Your task to perform on an android device: Clear the shopping cart on bestbuy.com. Add asus rog to the cart on bestbuy.com Image 0: 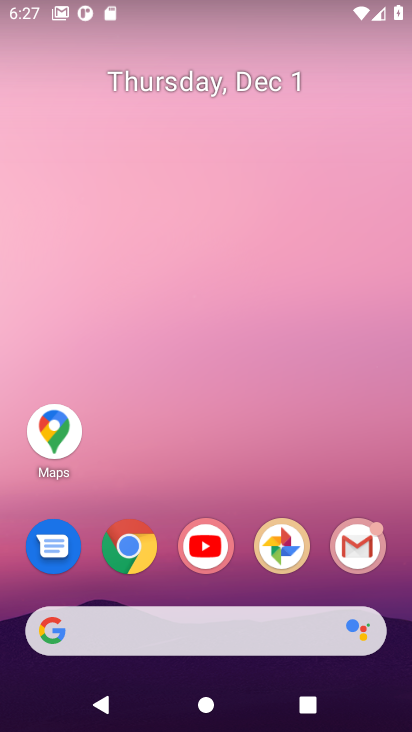
Step 0: click (142, 547)
Your task to perform on an android device: Clear the shopping cart on bestbuy.com. Add asus rog to the cart on bestbuy.com Image 1: 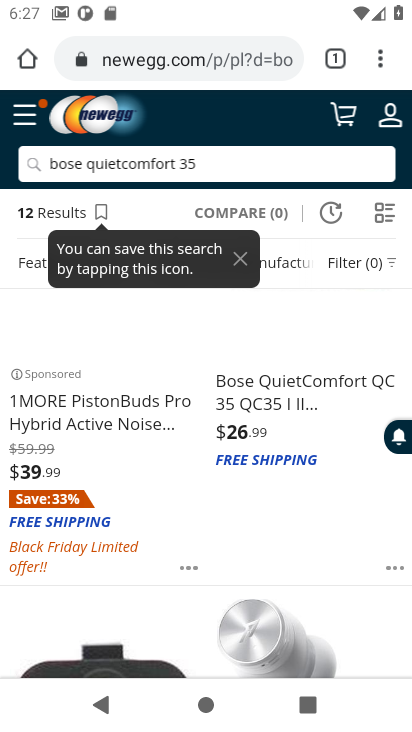
Step 1: click (178, 54)
Your task to perform on an android device: Clear the shopping cart on bestbuy.com. Add asus rog to the cart on bestbuy.com Image 2: 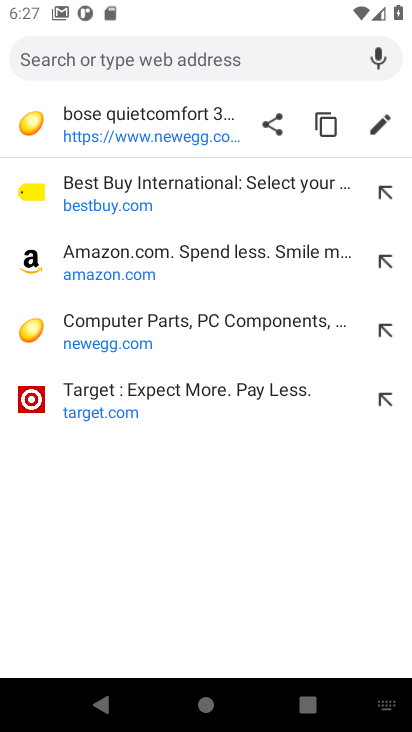
Step 2: click (103, 197)
Your task to perform on an android device: Clear the shopping cart on bestbuy.com. Add asus rog to the cart on bestbuy.com Image 3: 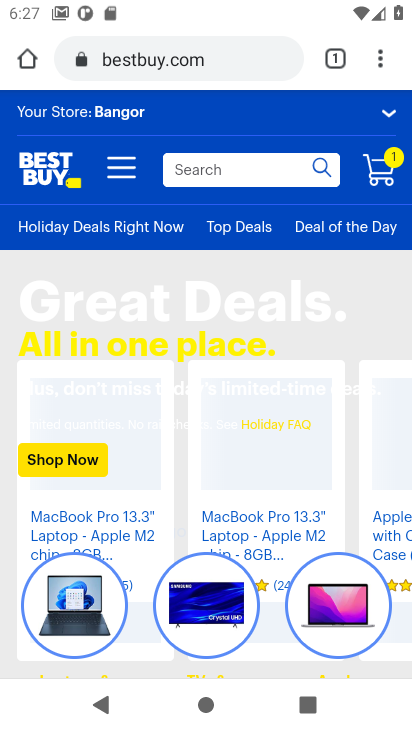
Step 3: click (379, 174)
Your task to perform on an android device: Clear the shopping cart on bestbuy.com. Add asus rog to the cart on bestbuy.com Image 4: 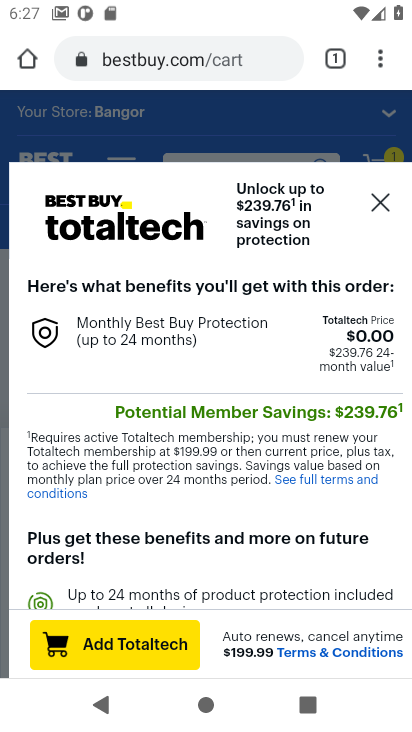
Step 4: click (383, 207)
Your task to perform on an android device: Clear the shopping cart on bestbuy.com. Add asus rog to the cart on bestbuy.com Image 5: 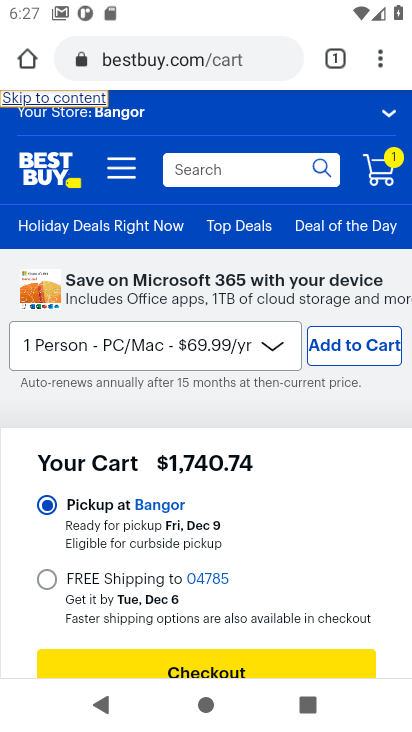
Step 5: drag from (276, 436) to (264, 180)
Your task to perform on an android device: Clear the shopping cart on bestbuy.com. Add asus rog to the cart on bestbuy.com Image 6: 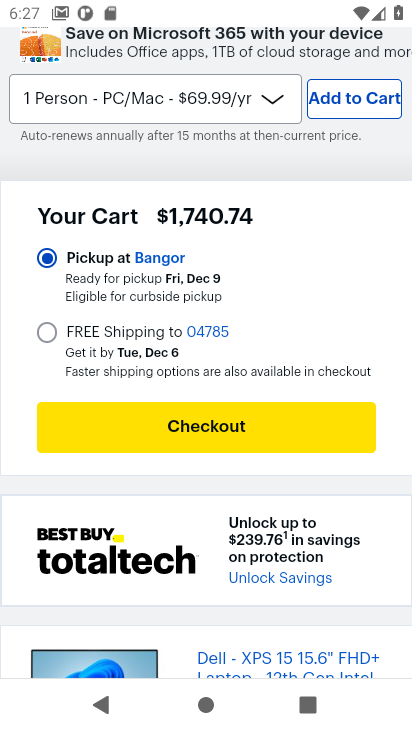
Step 6: drag from (244, 454) to (235, 152)
Your task to perform on an android device: Clear the shopping cart on bestbuy.com. Add asus rog to the cart on bestbuy.com Image 7: 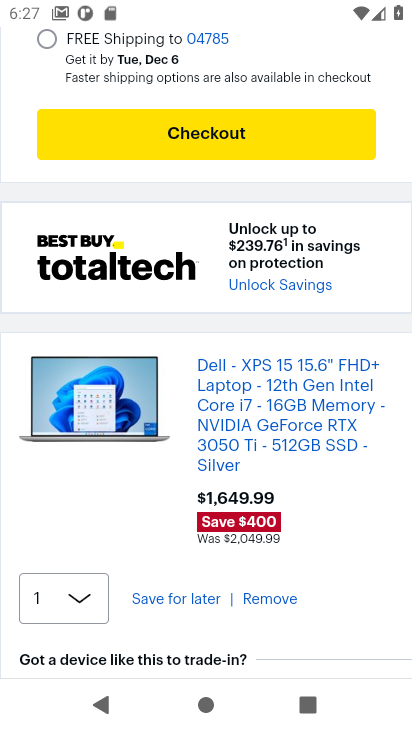
Step 7: click (268, 606)
Your task to perform on an android device: Clear the shopping cart on bestbuy.com. Add asus rog to the cart on bestbuy.com Image 8: 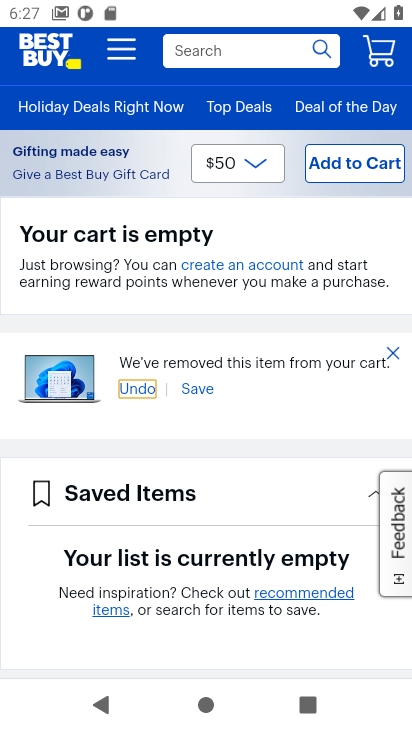
Step 8: click (214, 60)
Your task to perform on an android device: Clear the shopping cart on bestbuy.com. Add asus rog to the cart on bestbuy.com Image 9: 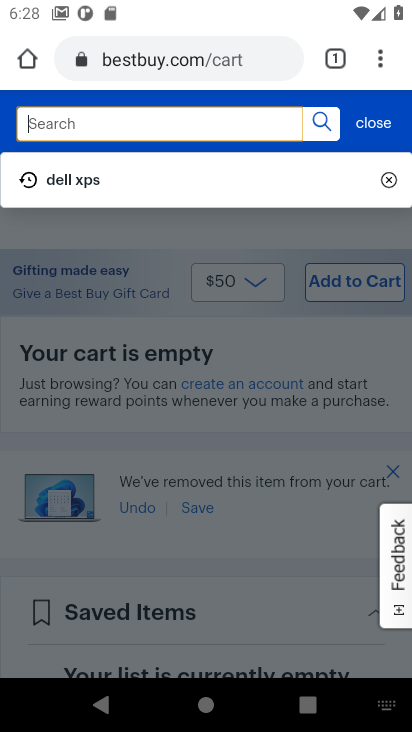
Step 9: type "asus rog"
Your task to perform on an android device: Clear the shopping cart on bestbuy.com. Add asus rog to the cart on bestbuy.com Image 10: 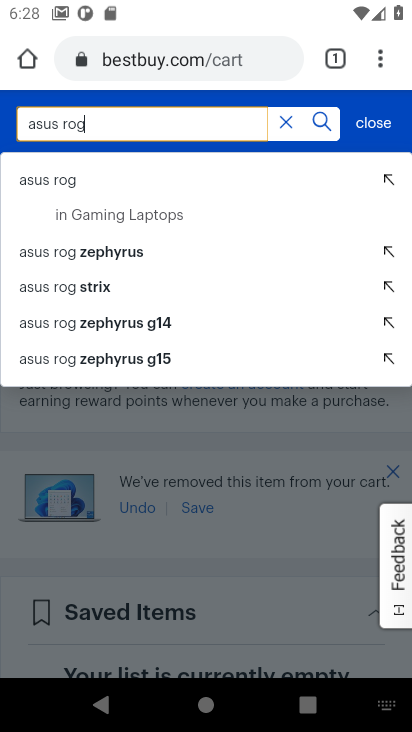
Step 10: click (37, 181)
Your task to perform on an android device: Clear the shopping cart on bestbuy.com. Add asus rog to the cart on bestbuy.com Image 11: 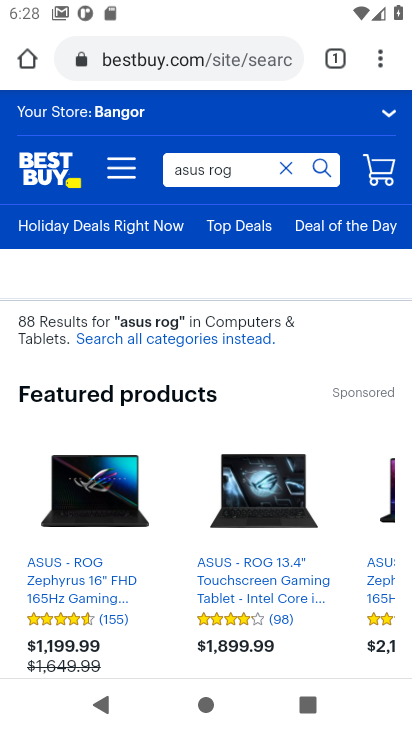
Step 11: drag from (168, 560) to (166, 262)
Your task to perform on an android device: Clear the shopping cart on bestbuy.com. Add asus rog to the cart on bestbuy.com Image 12: 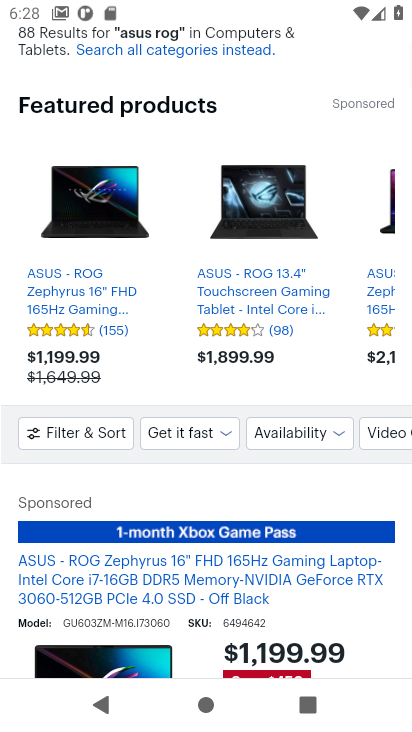
Step 12: drag from (157, 510) to (138, 203)
Your task to perform on an android device: Clear the shopping cart on bestbuy.com. Add asus rog to the cart on bestbuy.com Image 13: 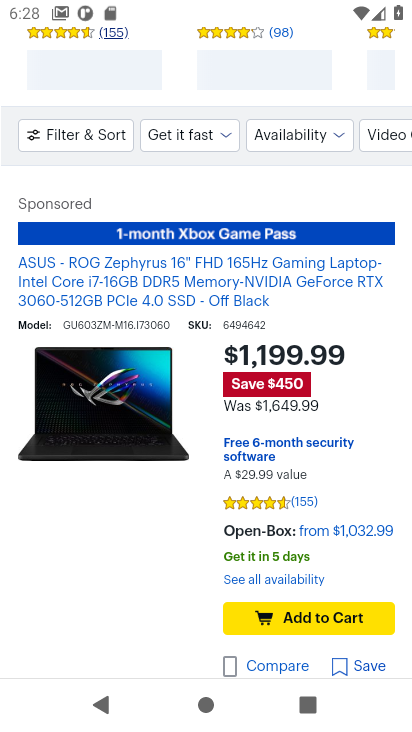
Step 13: click (293, 613)
Your task to perform on an android device: Clear the shopping cart on bestbuy.com. Add asus rog to the cart on bestbuy.com Image 14: 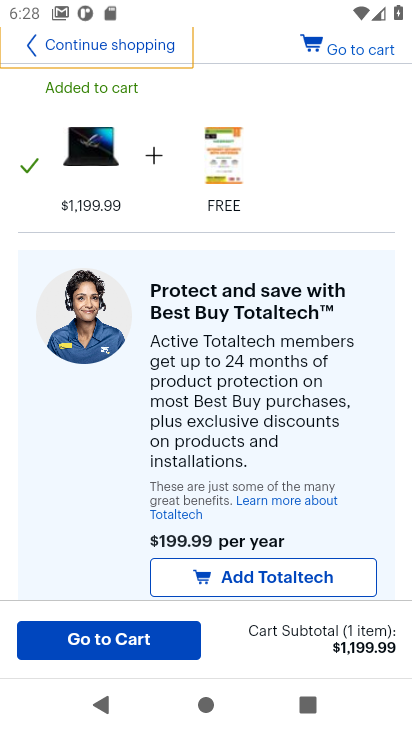
Step 14: task complete